Your task to perform on an android device: Open eBay Image 0: 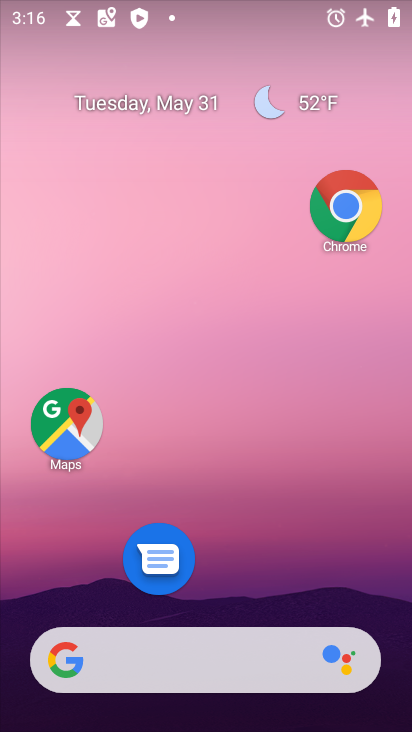
Step 0: drag from (296, 608) to (257, 168)
Your task to perform on an android device: Open eBay Image 1: 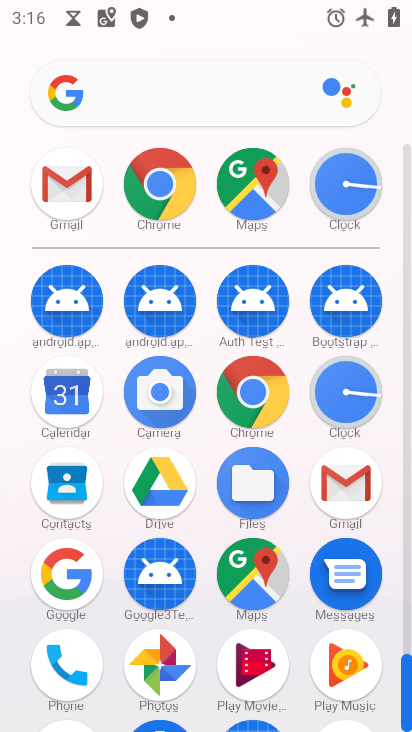
Step 1: click (270, 406)
Your task to perform on an android device: Open eBay Image 2: 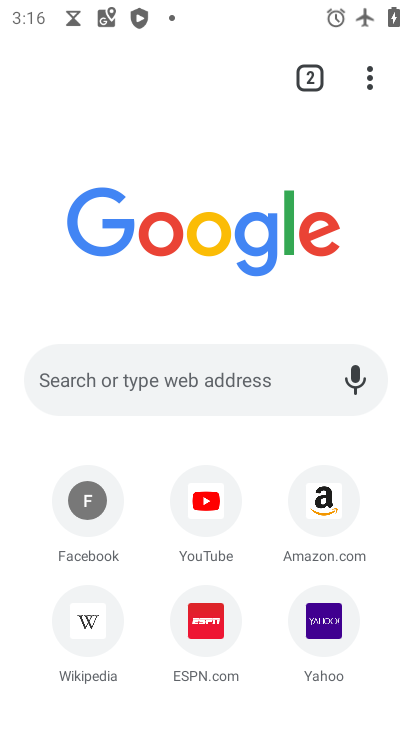
Step 2: click (217, 388)
Your task to perform on an android device: Open eBay Image 3: 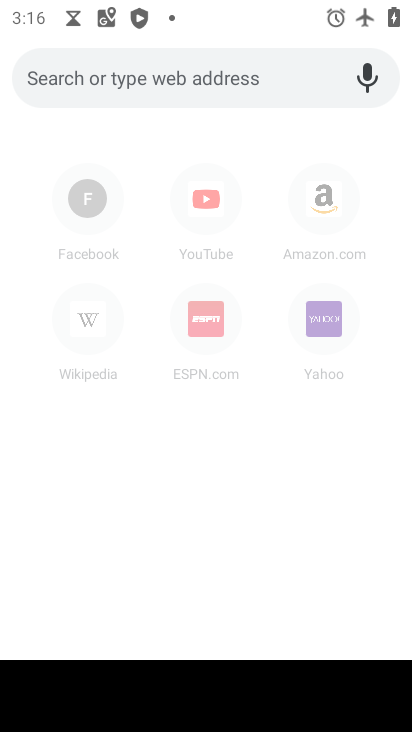
Step 3: type "ebay"
Your task to perform on an android device: Open eBay Image 4: 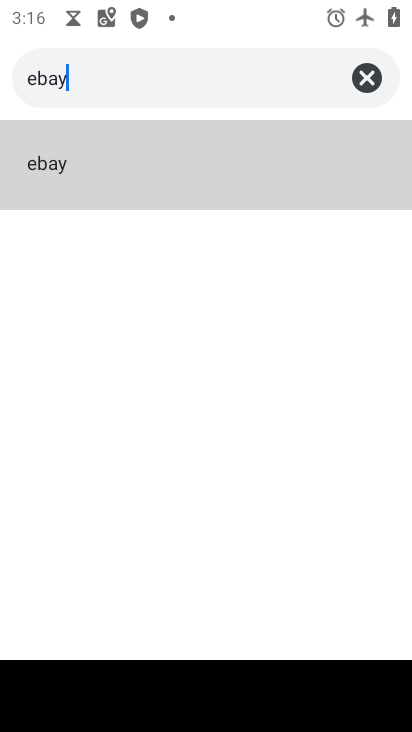
Step 4: type ""
Your task to perform on an android device: Open eBay Image 5: 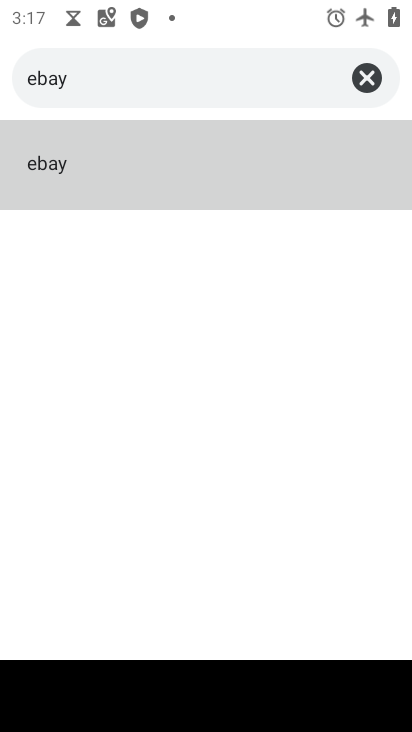
Step 5: click (192, 194)
Your task to perform on an android device: Open eBay Image 6: 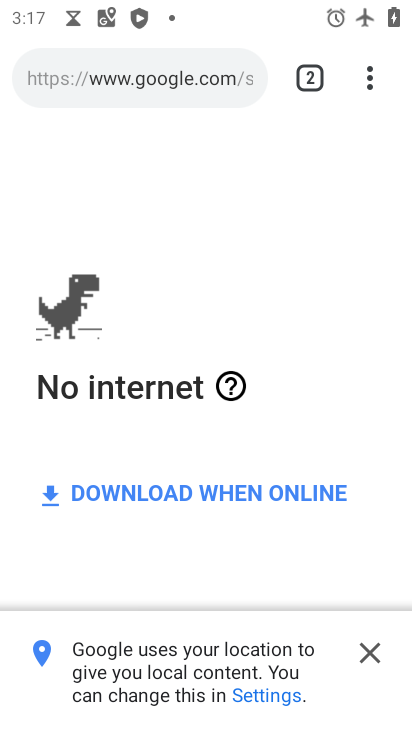
Step 6: click (374, 652)
Your task to perform on an android device: Open eBay Image 7: 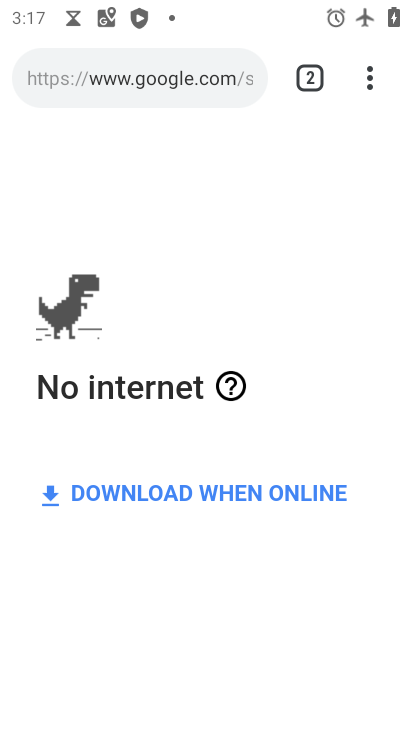
Step 7: task complete